Your task to perform on an android device: turn vacation reply on in the gmail app Image 0: 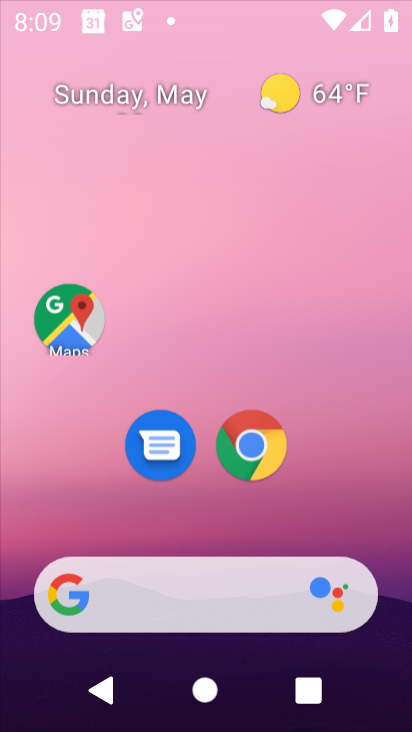
Step 0: click (194, 17)
Your task to perform on an android device: turn vacation reply on in the gmail app Image 1: 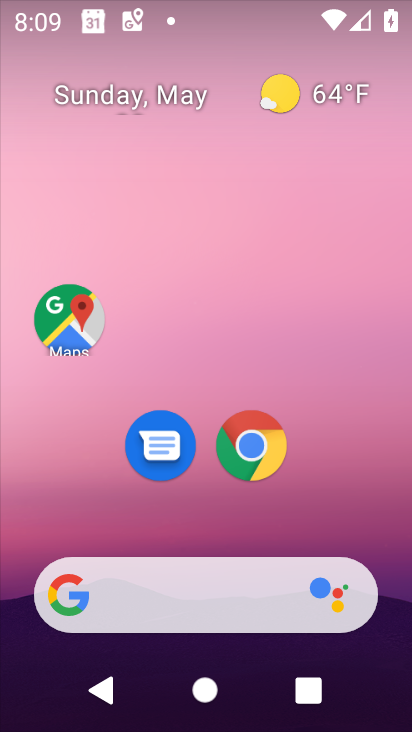
Step 1: drag from (218, 520) to (232, 72)
Your task to perform on an android device: turn vacation reply on in the gmail app Image 2: 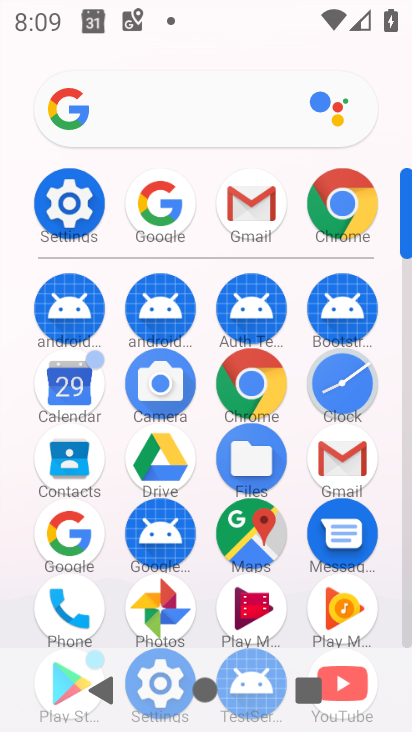
Step 2: click (350, 453)
Your task to perform on an android device: turn vacation reply on in the gmail app Image 3: 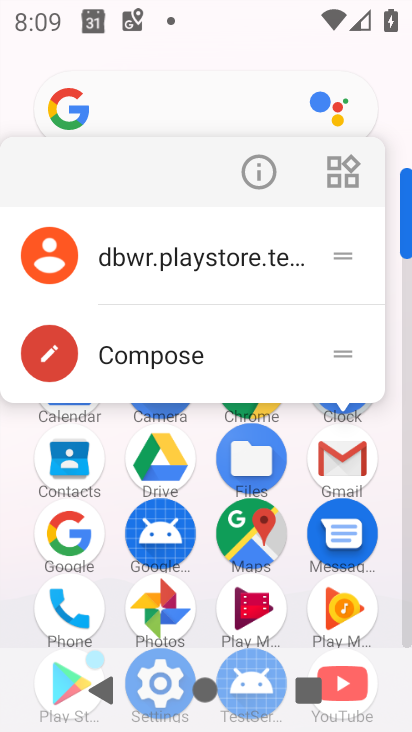
Step 3: click (160, 256)
Your task to perform on an android device: turn vacation reply on in the gmail app Image 4: 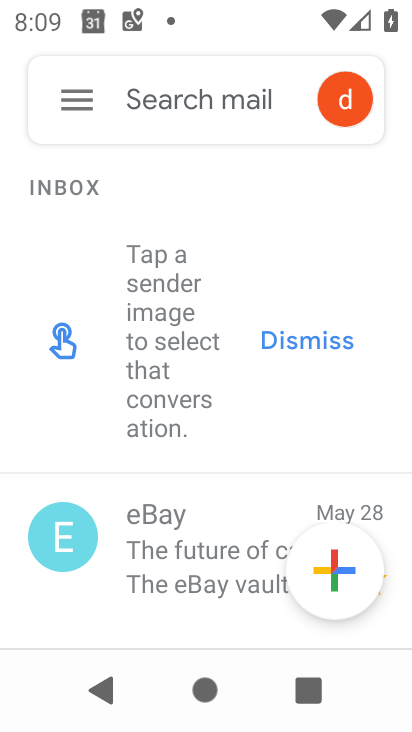
Step 4: click (77, 96)
Your task to perform on an android device: turn vacation reply on in the gmail app Image 5: 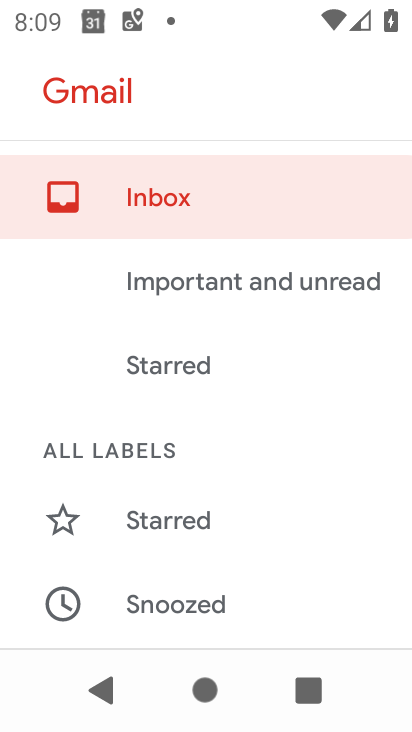
Step 5: drag from (259, 583) to (295, 14)
Your task to perform on an android device: turn vacation reply on in the gmail app Image 6: 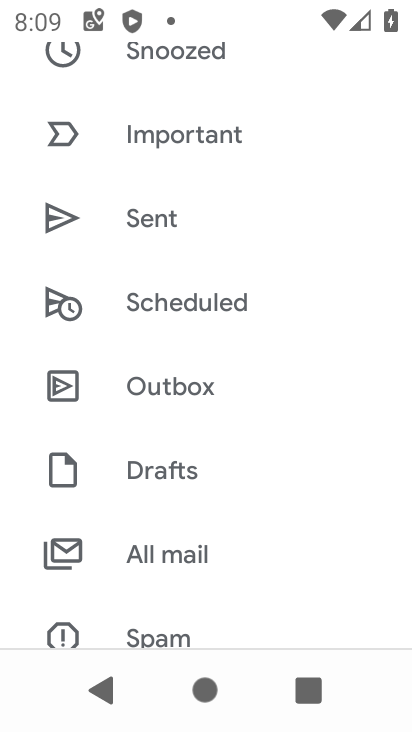
Step 6: drag from (172, 563) to (261, 0)
Your task to perform on an android device: turn vacation reply on in the gmail app Image 7: 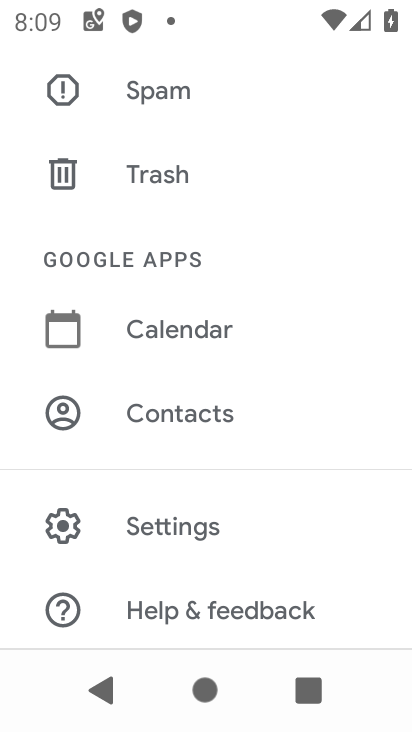
Step 7: click (162, 528)
Your task to perform on an android device: turn vacation reply on in the gmail app Image 8: 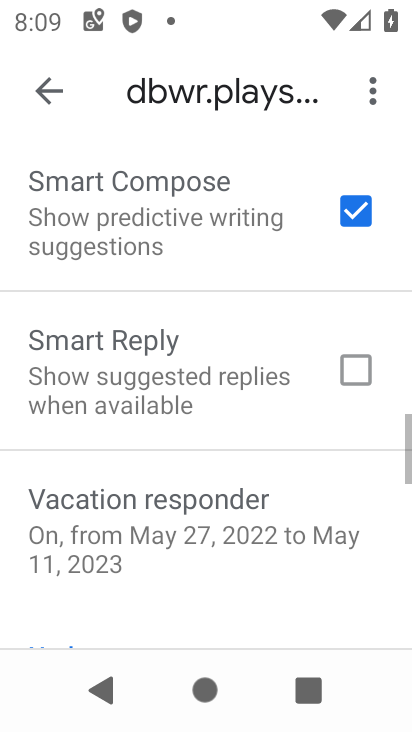
Step 8: drag from (179, 571) to (166, 618)
Your task to perform on an android device: turn vacation reply on in the gmail app Image 9: 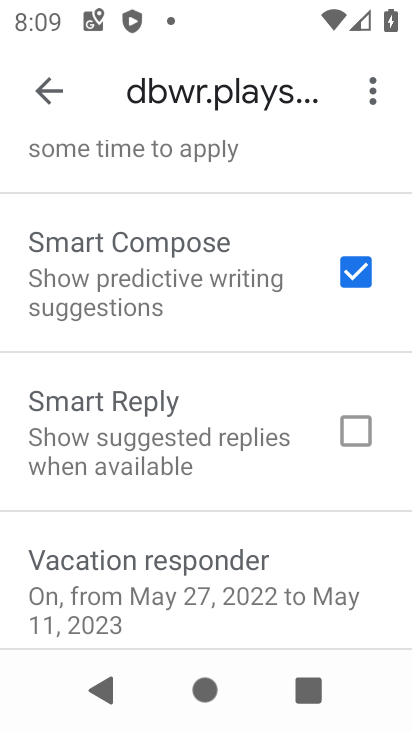
Step 9: click (141, 590)
Your task to perform on an android device: turn vacation reply on in the gmail app Image 10: 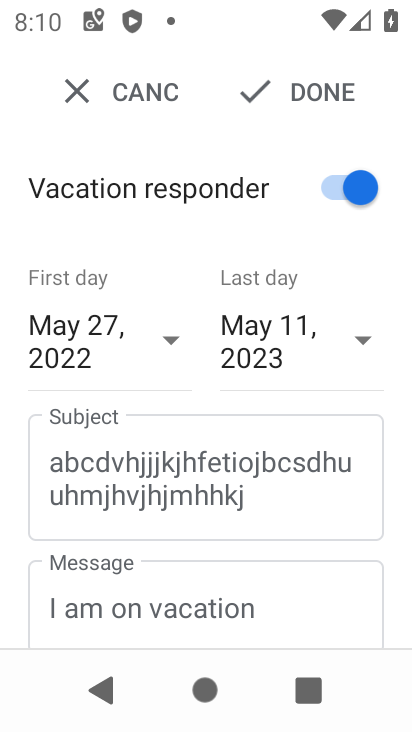
Step 10: click (284, 107)
Your task to perform on an android device: turn vacation reply on in the gmail app Image 11: 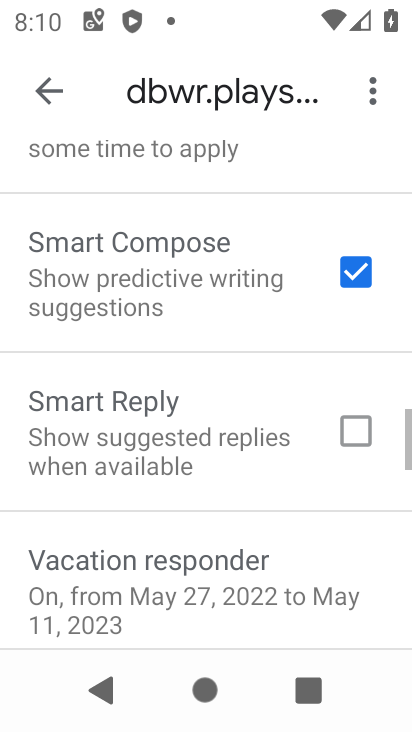
Step 11: task complete